Your task to perform on an android device: turn off javascript in the chrome app Image 0: 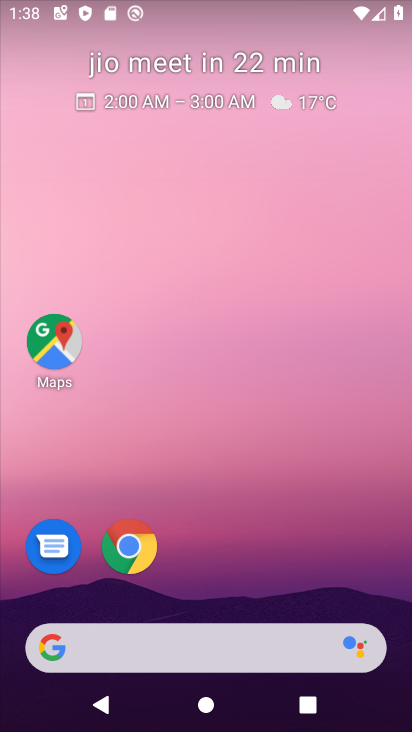
Step 0: click (149, 551)
Your task to perform on an android device: turn off javascript in the chrome app Image 1: 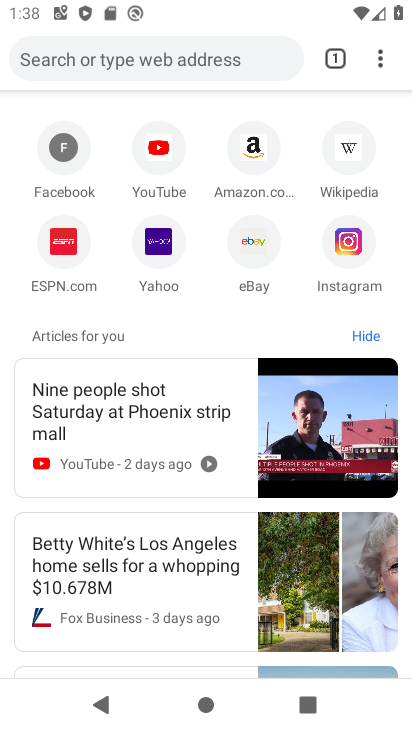
Step 1: click (386, 69)
Your task to perform on an android device: turn off javascript in the chrome app Image 2: 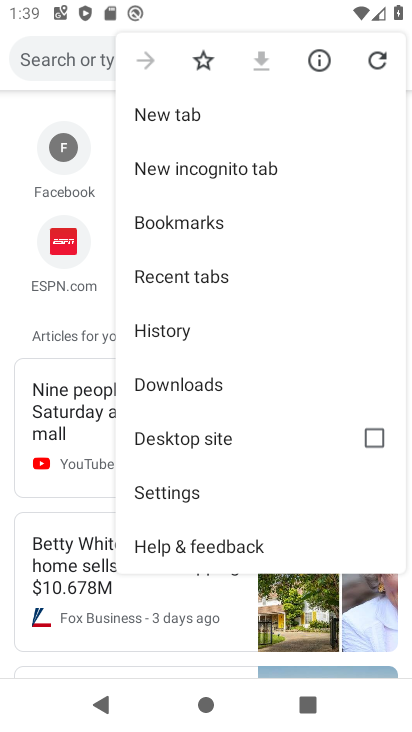
Step 2: click (217, 464)
Your task to perform on an android device: turn off javascript in the chrome app Image 3: 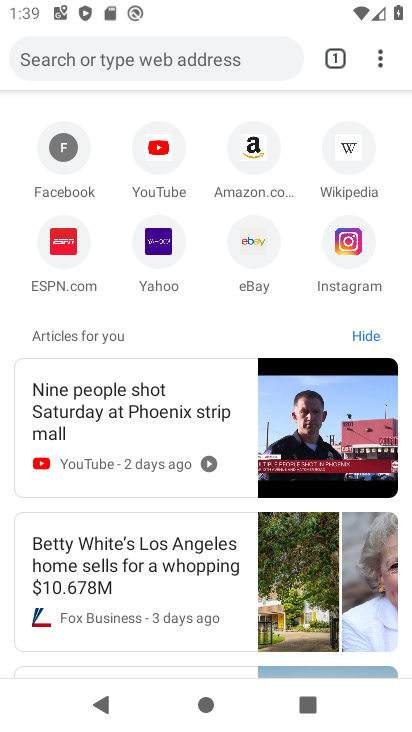
Step 3: task complete